Your task to perform on an android device: Open calendar and show me the fourth week of next month Image 0: 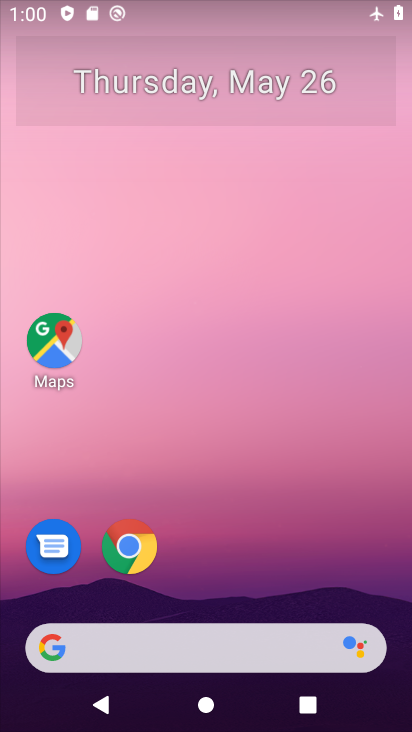
Step 0: click (174, 89)
Your task to perform on an android device: Open calendar and show me the fourth week of next month Image 1: 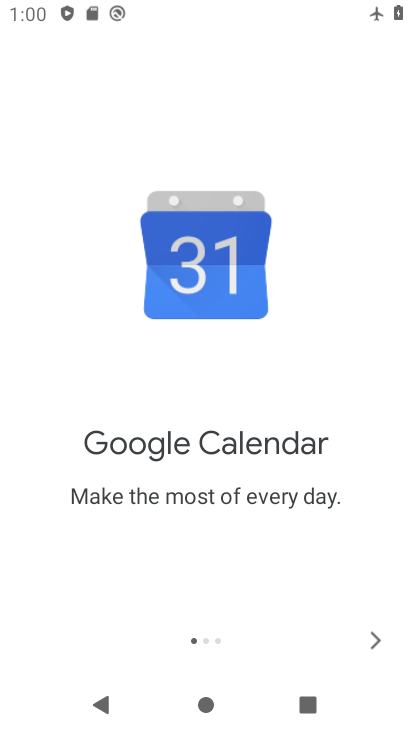
Step 1: click (370, 639)
Your task to perform on an android device: Open calendar and show me the fourth week of next month Image 2: 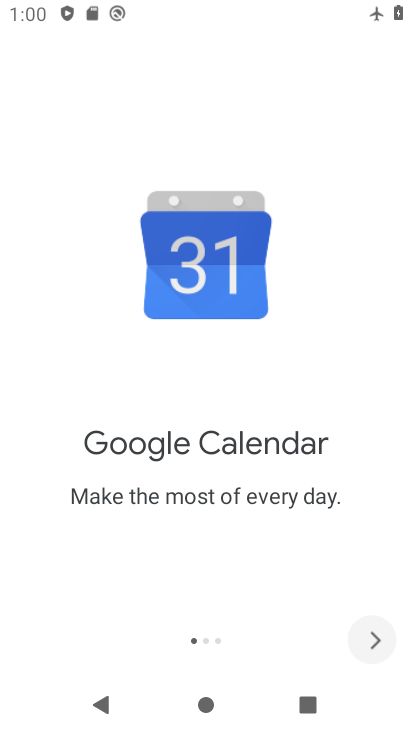
Step 2: click (371, 637)
Your task to perform on an android device: Open calendar and show me the fourth week of next month Image 3: 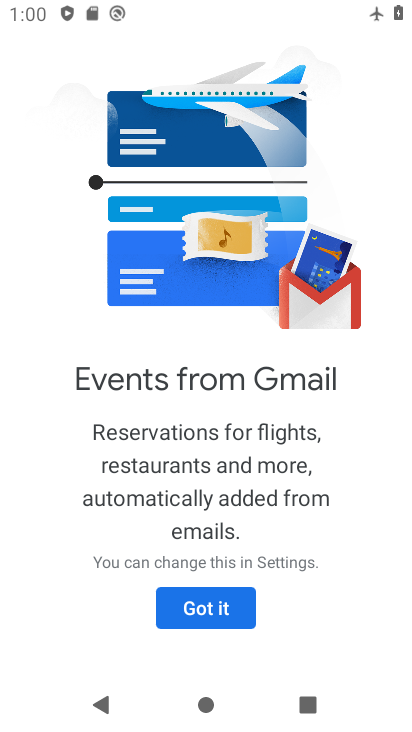
Step 3: click (230, 603)
Your task to perform on an android device: Open calendar and show me the fourth week of next month Image 4: 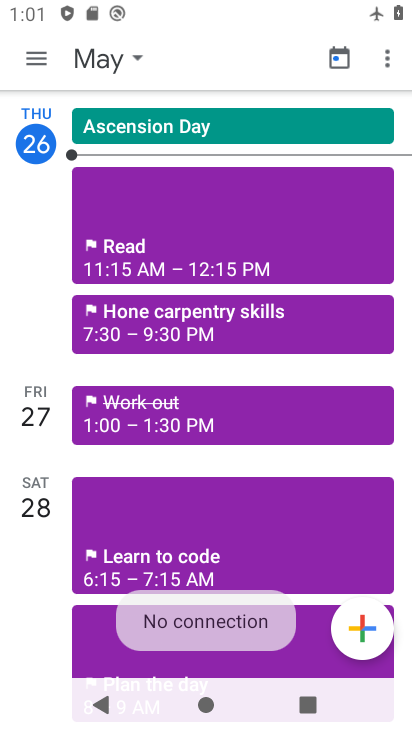
Step 4: click (30, 37)
Your task to perform on an android device: Open calendar and show me the fourth week of next month Image 5: 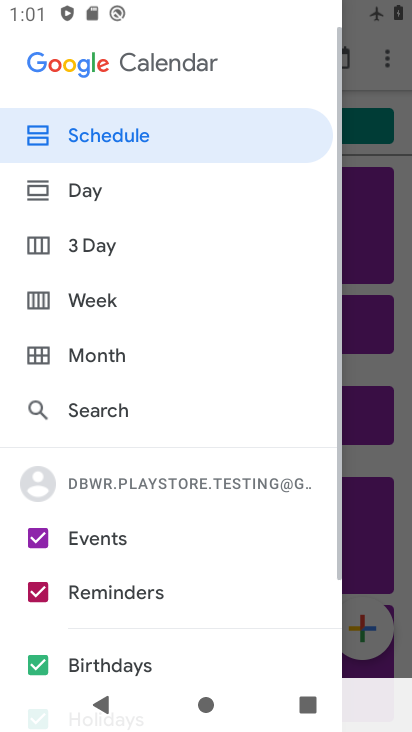
Step 5: click (136, 294)
Your task to perform on an android device: Open calendar and show me the fourth week of next month Image 6: 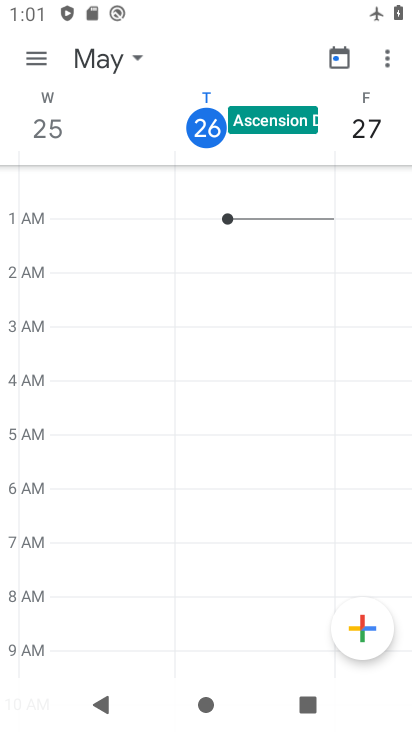
Step 6: click (116, 58)
Your task to perform on an android device: Open calendar and show me the fourth week of next month Image 7: 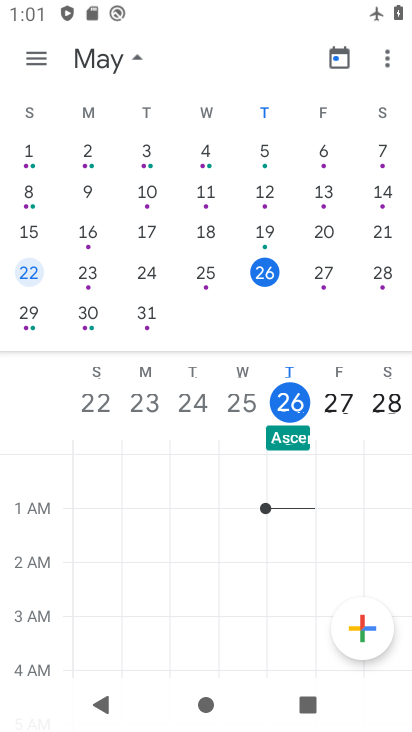
Step 7: drag from (362, 243) to (4, 177)
Your task to perform on an android device: Open calendar and show me the fourth week of next month Image 8: 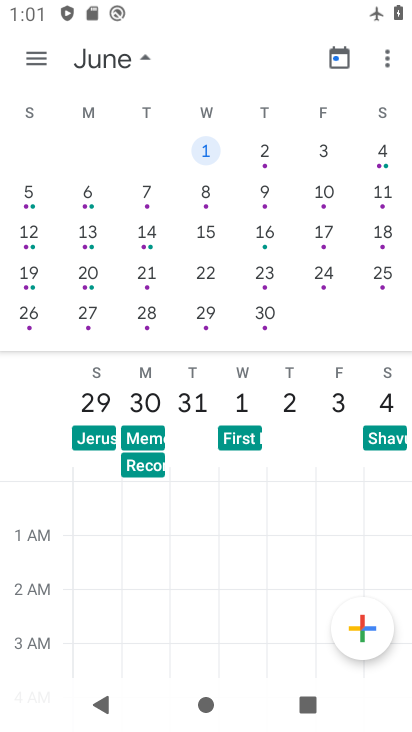
Step 8: click (37, 266)
Your task to perform on an android device: Open calendar and show me the fourth week of next month Image 9: 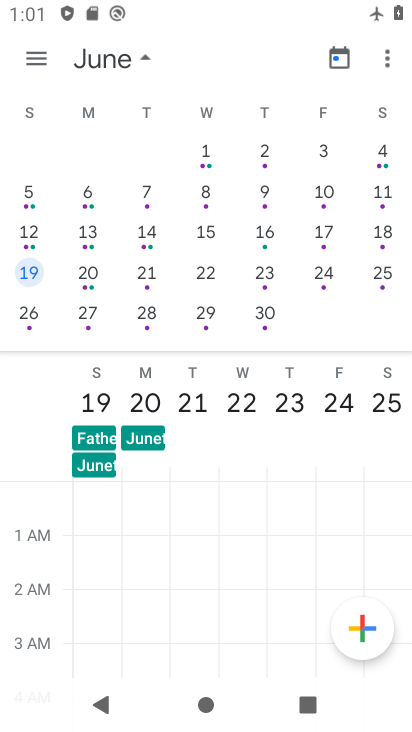
Step 9: task complete